Your task to perform on an android device: Go to eBay Image 0: 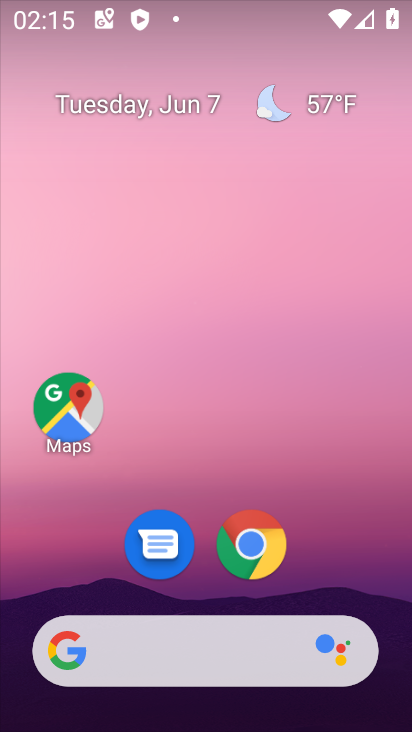
Step 0: click (265, 550)
Your task to perform on an android device: Go to eBay Image 1: 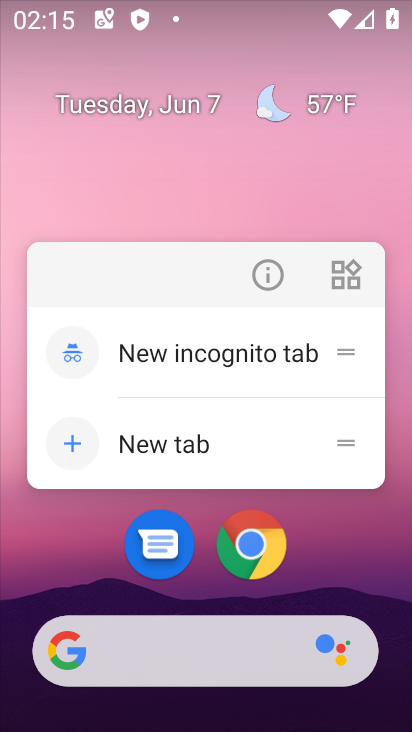
Step 1: click (245, 544)
Your task to perform on an android device: Go to eBay Image 2: 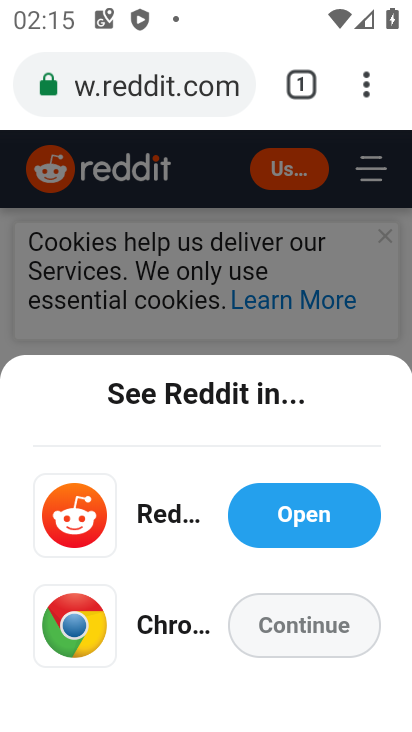
Step 2: click (366, 94)
Your task to perform on an android device: Go to eBay Image 3: 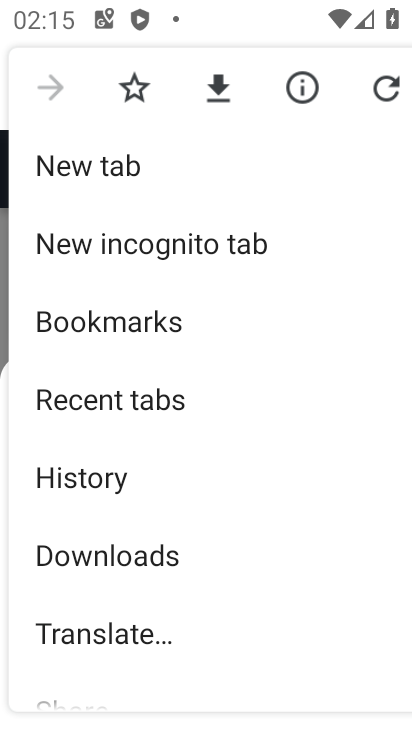
Step 3: drag from (186, 592) to (228, 292)
Your task to perform on an android device: Go to eBay Image 4: 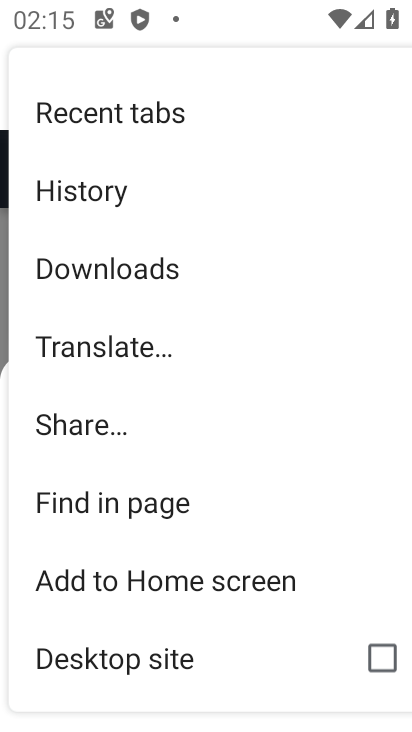
Step 4: drag from (169, 279) to (157, 550)
Your task to perform on an android device: Go to eBay Image 5: 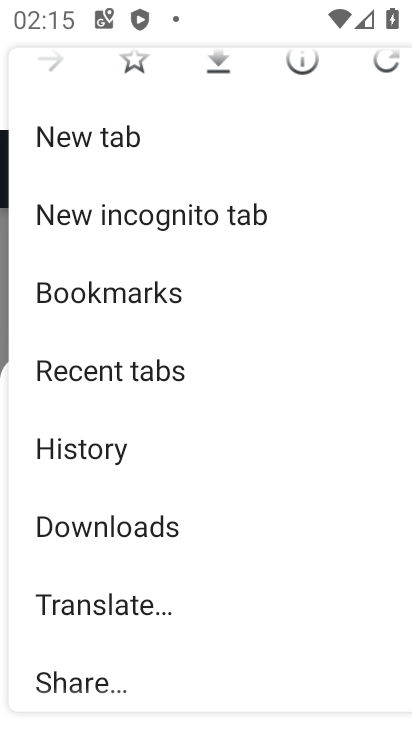
Step 5: click (106, 137)
Your task to perform on an android device: Go to eBay Image 6: 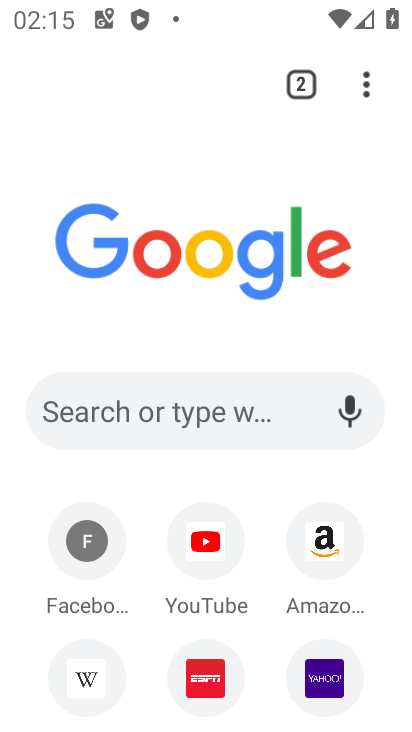
Step 6: click (196, 414)
Your task to perform on an android device: Go to eBay Image 7: 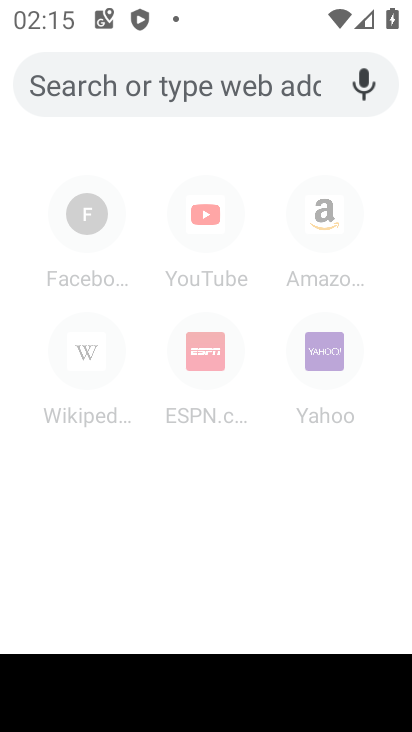
Step 7: type "eBay"
Your task to perform on an android device: Go to eBay Image 8: 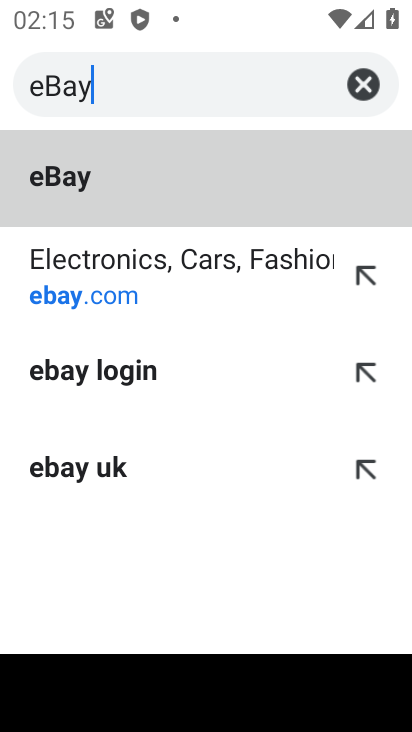
Step 8: click (235, 211)
Your task to perform on an android device: Go to eBay Image 9: 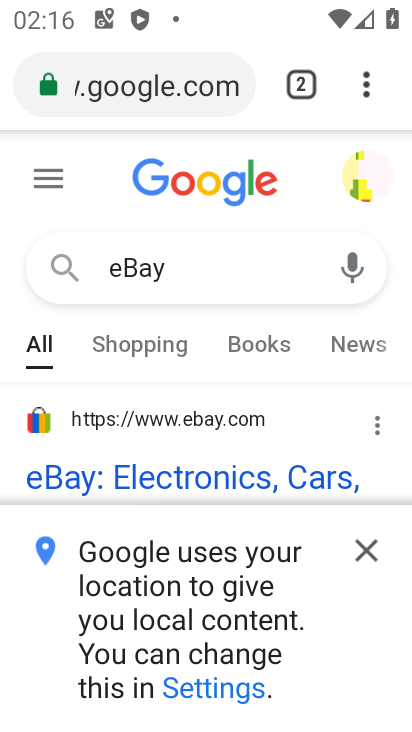
Step 9: task complete